Your task to perform on an android device: toggle translation in the chrome app Image 0: 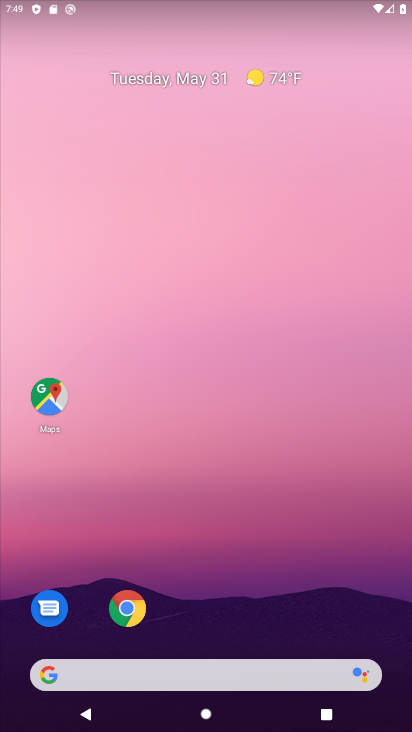
Step 0: click (118, 598)
Your task to perform on an android device: toggle translation in the chrome app Image 1: 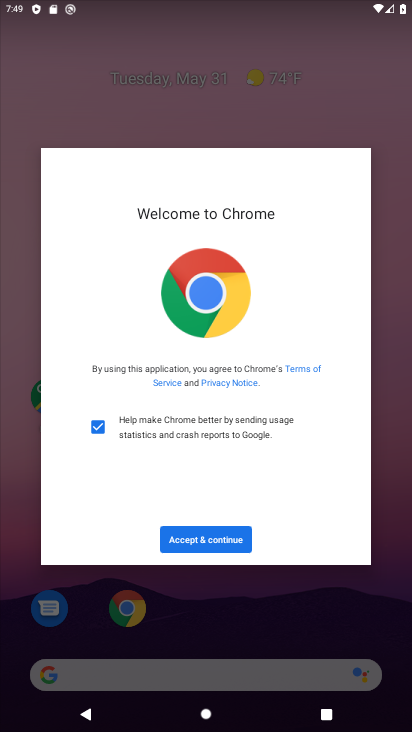
Step 1: click (194, 540)
Your task to perform on an android device: toggle translation in the chrome app Image 2: 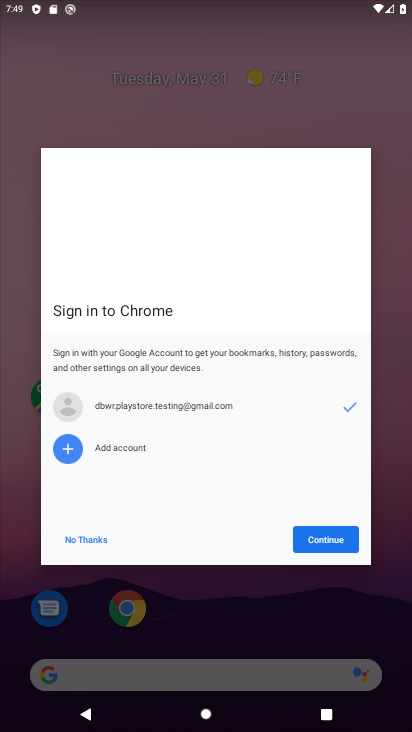
Step 2: click (332, 545)
Your task to perform on an android device: toggle translation in the chrome app Image 3: 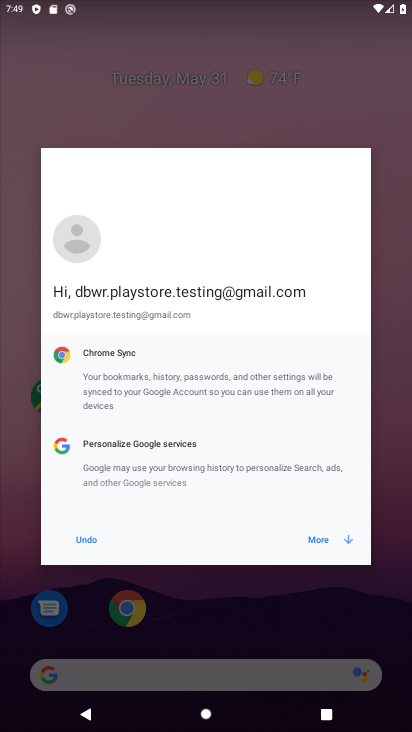
Step 3: click (335, 538)
Your task to perform on an android device: toggle translation in the chrome app Image 4: 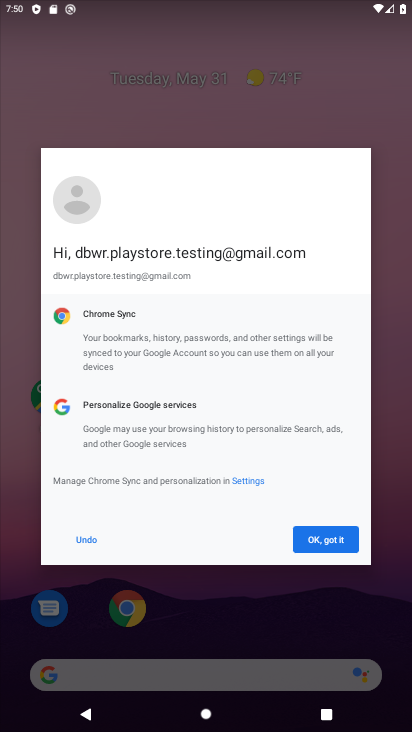
Step 4: click (305, 538)
Your task to perform on an android device: toggle translation in the chrome app Image 5: 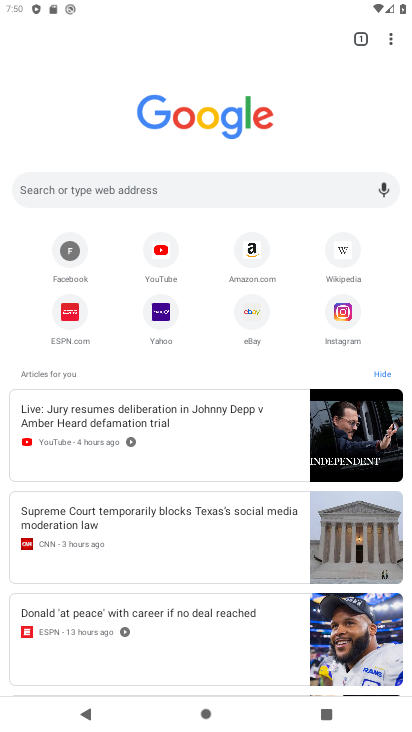
Step 5: click (393, 32)
Your task to perform on an android device: toggle translation in the chrome app Image 6: 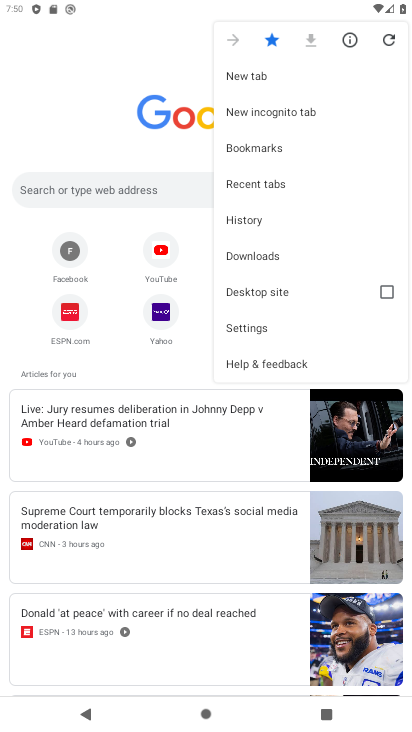
Step 6: click (244, 330)
Your task to perform on an android device: toggle translation in the chrome app Image 7: 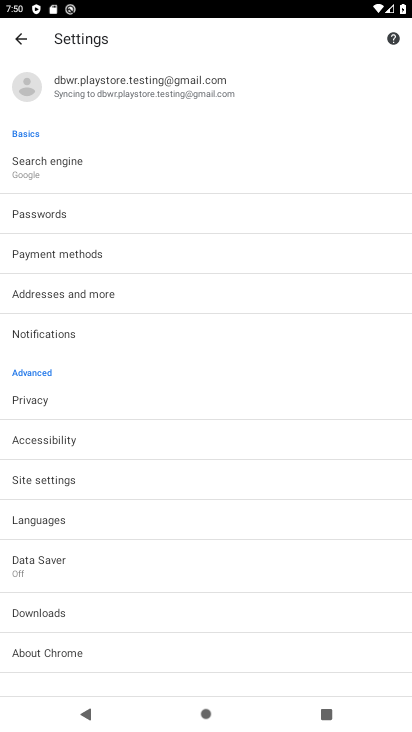
Step 7: click (40, 512)
Your task to perform on an android device: toggle translation in the chrome app Image 8: 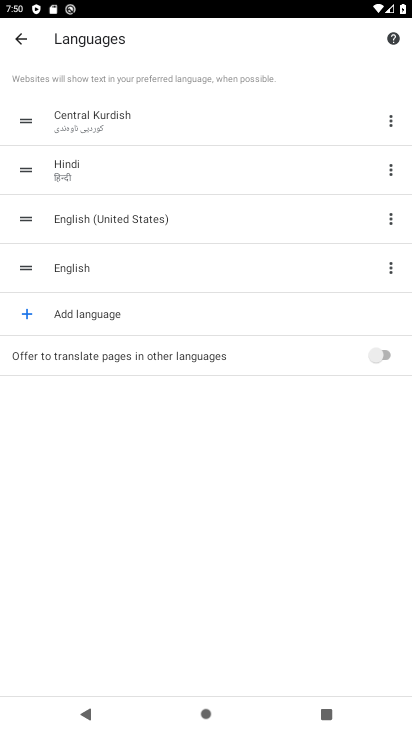
Step 8: click (171, 371)
Your task to perform on an android device: toggle translation in the chrome app Image 9: 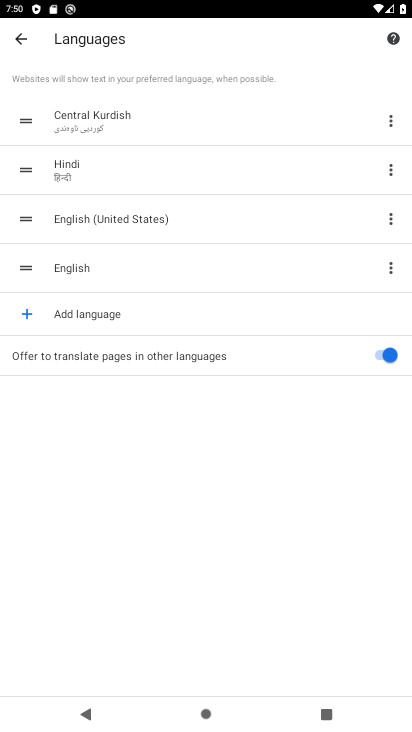
Step 9: task complete